Your task to perform on an android device: Clear the cart on amazon. Search for macbook pro 15 inch on amazon, select the first entry, add it to the cart, then select checkout. Image 0: 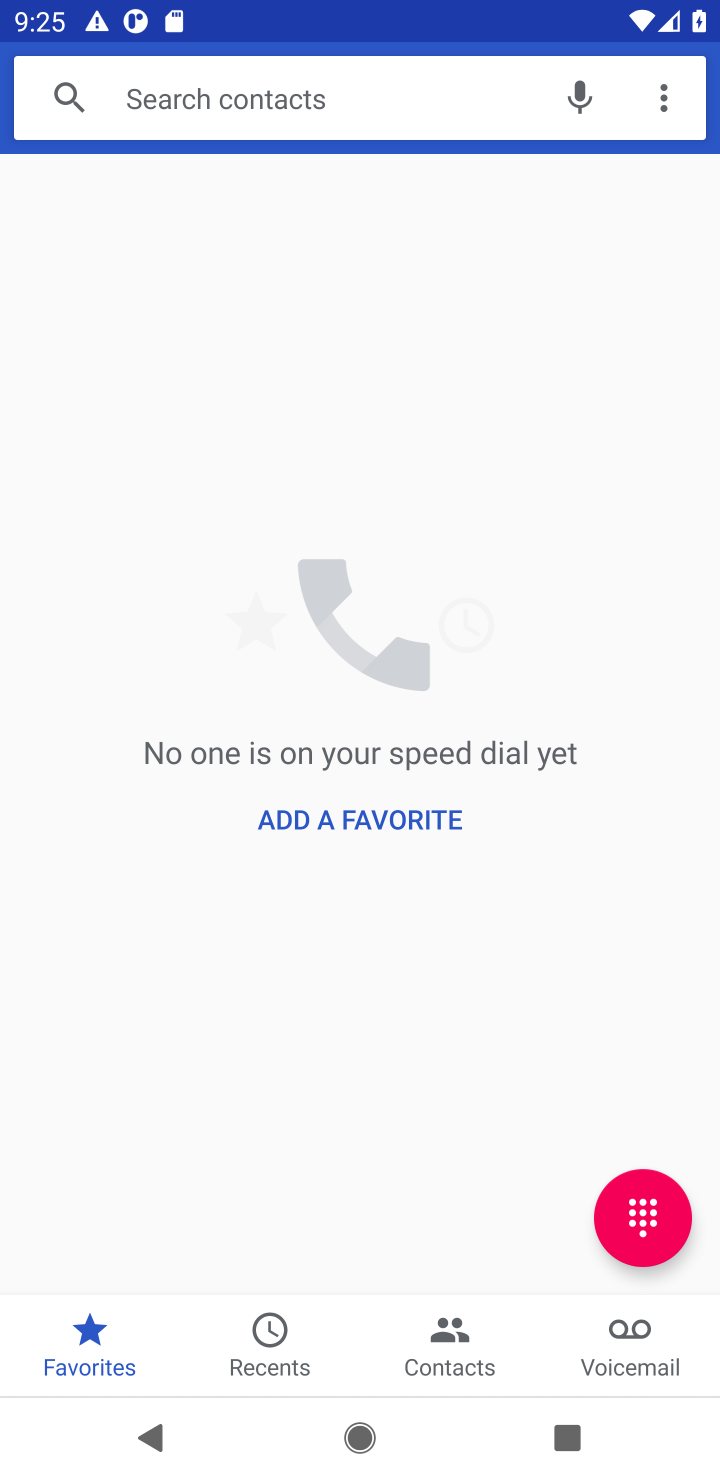
Step 0: press home button
Your task to perform on an android device: Clear the cart on amazon. Search for macbook pro 15 inch on amazon, select the first entry, add it to the cart, then select checkout. Image 1: 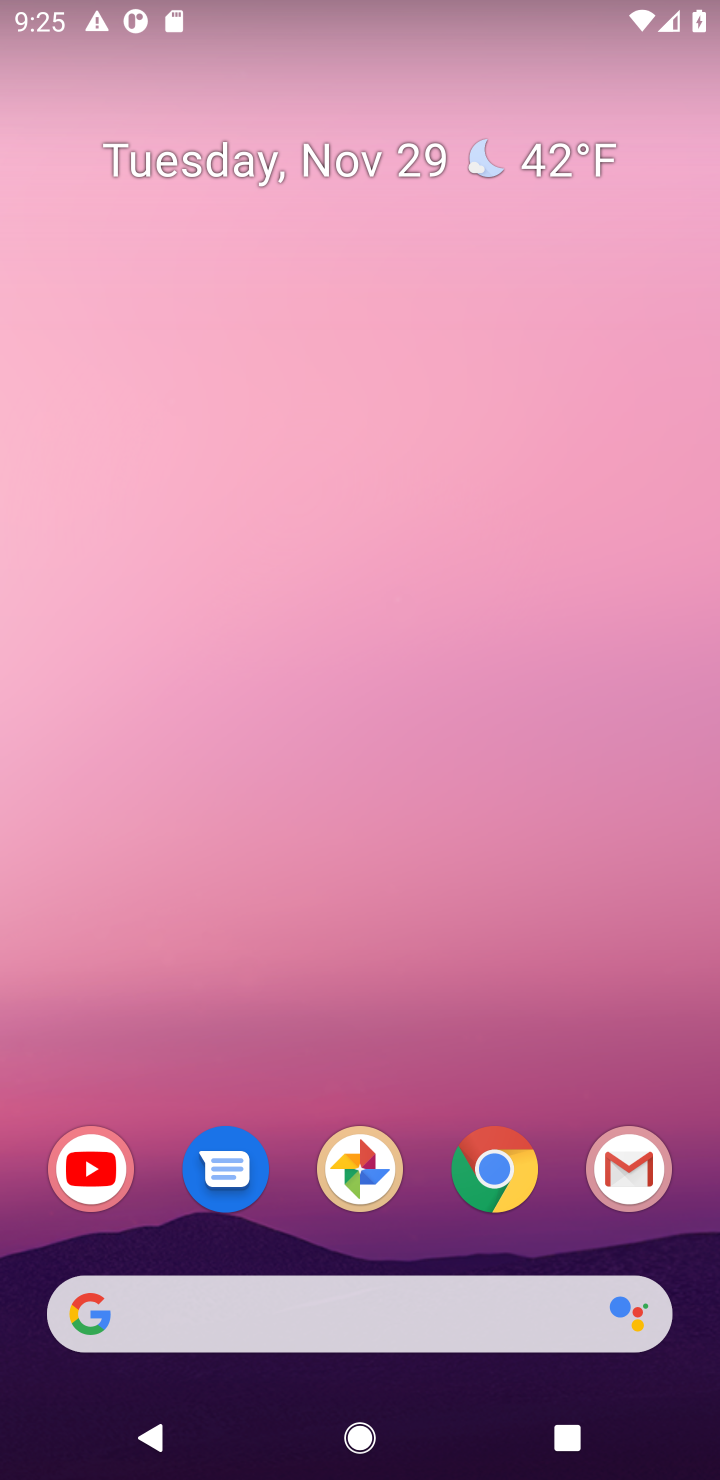
Step 1: click (353, 1292)
Your task to perform on an android device: Clear the cart on amazon. Search for macbook pro 15 inch on amazon, select the first entry, add it to the cart, then select checkout. Image 2: 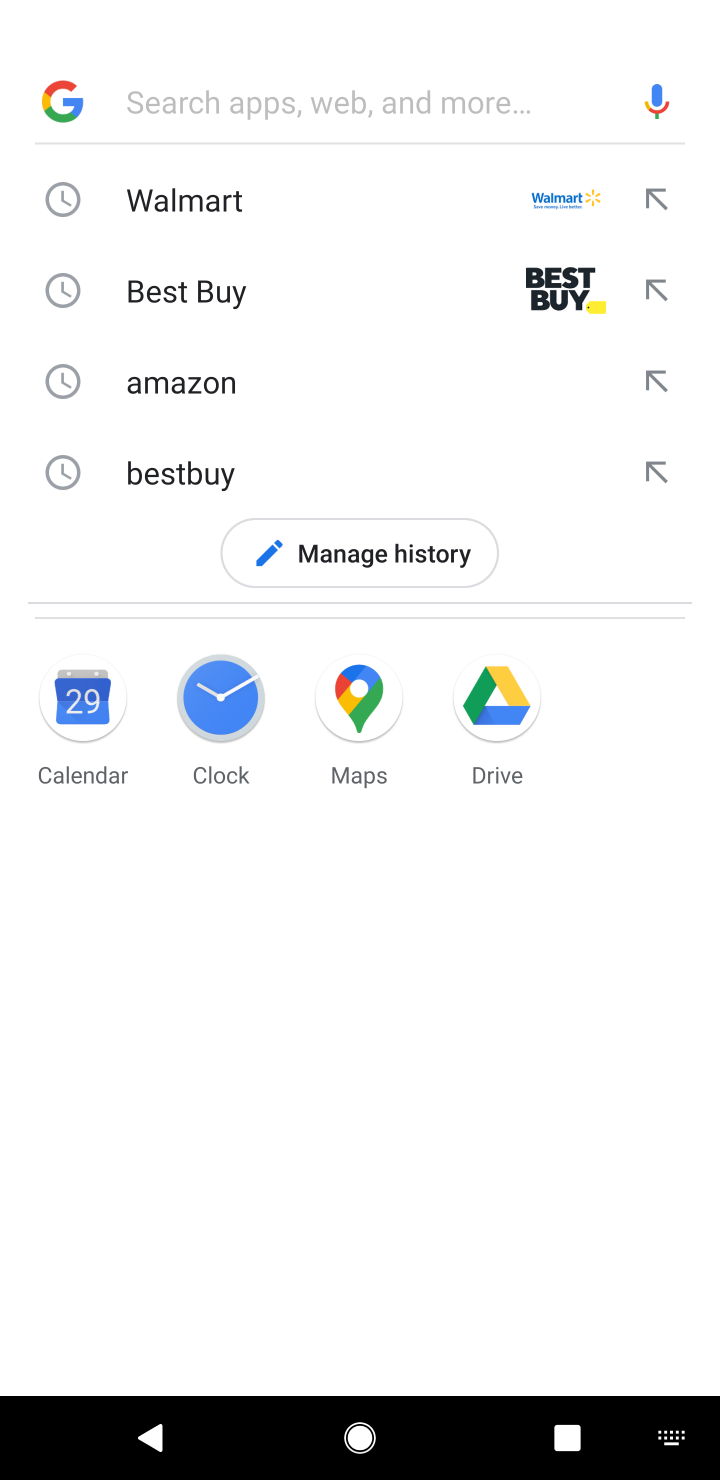
Step 2: type "amazon"
Your task to perform on an android device: Clear the cart on amazon. Search for macbook pro 15 inch on amazon, select the first entry, add it to the cart, then select checkout. Image 3: 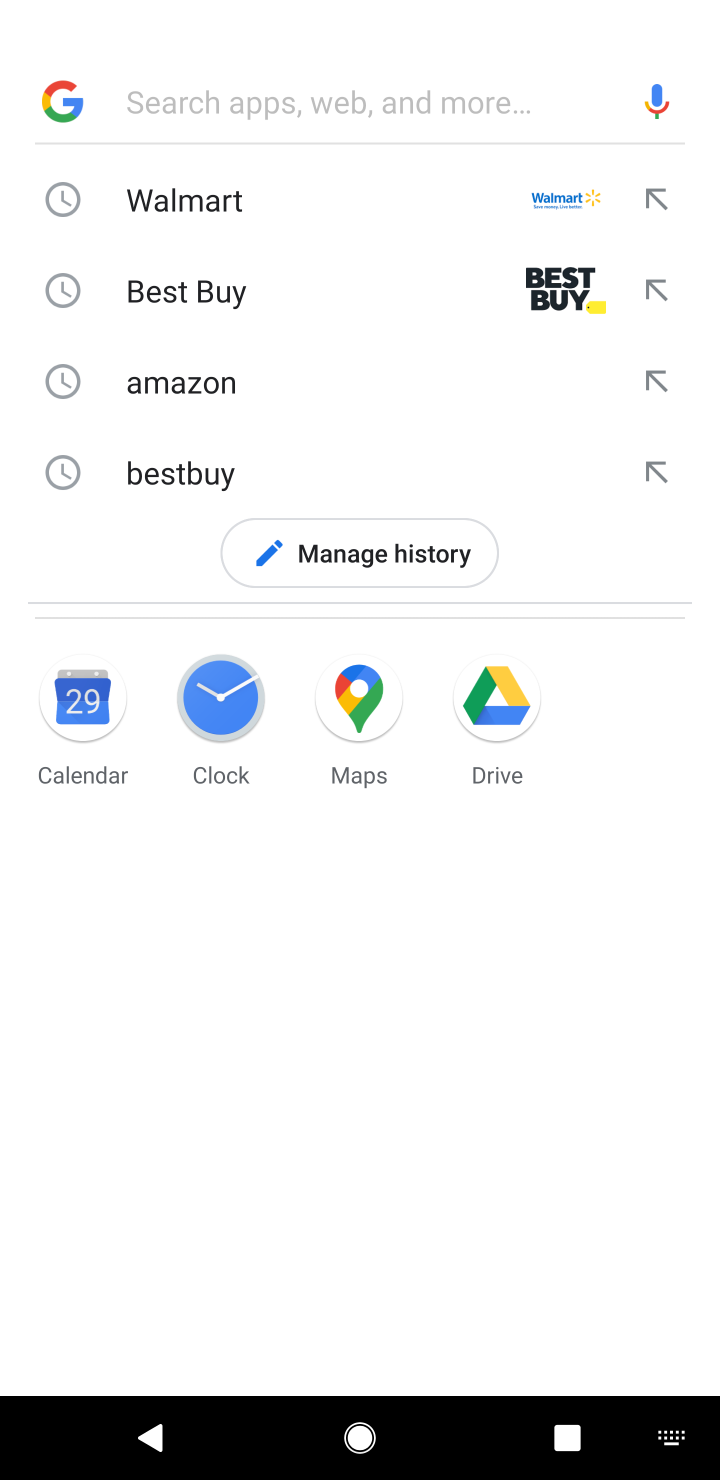
Step 3: click (342, 397)
Your task to perform on an android device: Clear the cart on amazon. Search for macbook pro 15 inch on amazon, select the first entry, add it to the cart, then select checkout. Image 4: 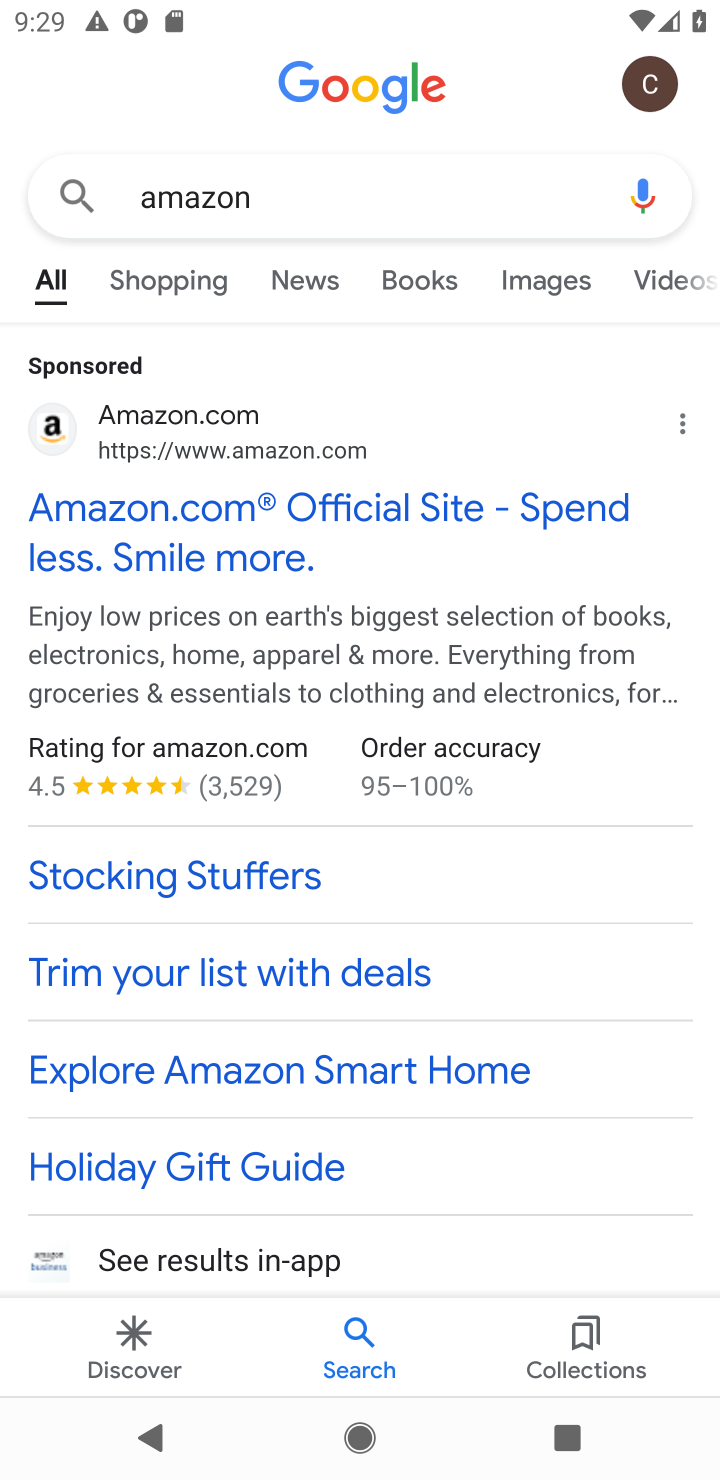
Step 4: click (115, 576)
Your task to perform on an android device: Clear the cart on amazon. Search for macbook pro 15 inch on amazon, select the first entry, add it to the cart, then select checkout. Image 5: 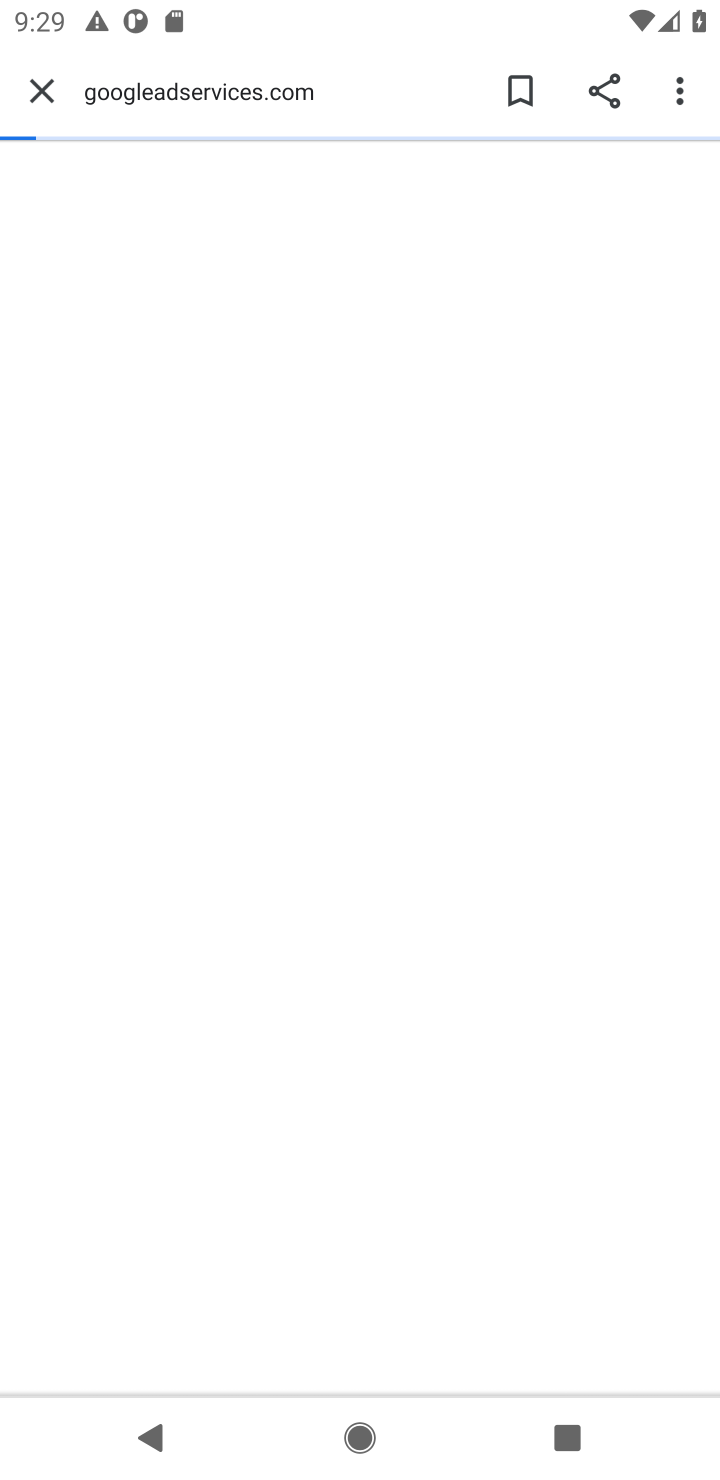
Step 5: task complete